Your task to perform on an android device: Clear the shopping cart on newegg.com. Image 0: 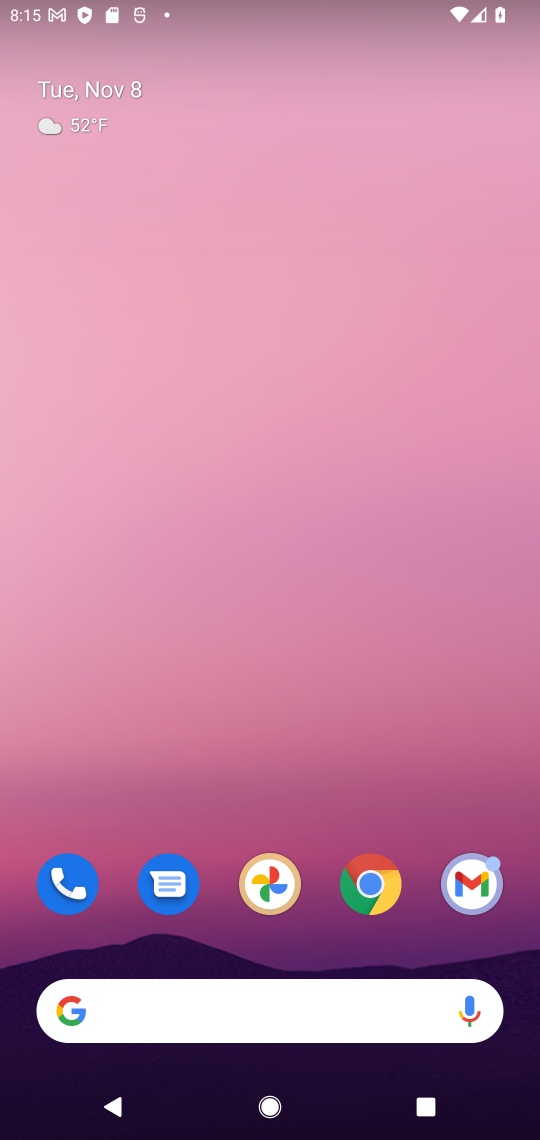
Step 0: drag from (310, 948) to (307, 145)
Your task to perform on an android device: Clear the shopping cart on newegg.com. Image 1: 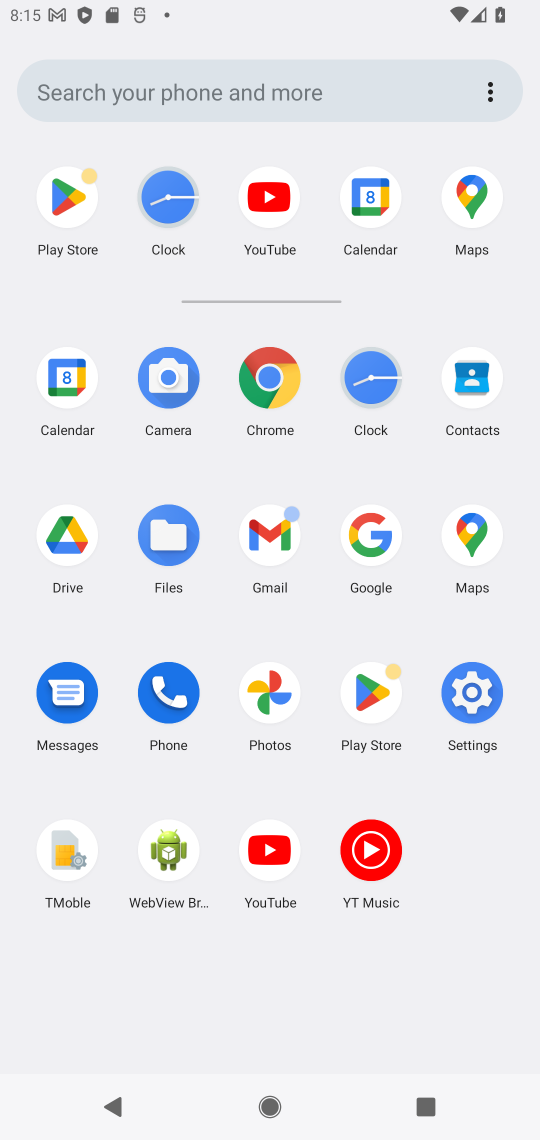
Step 1: click (362, 558)
Your task to perform on an android device: Clear the shopping cart on newegg.com. Image 2: 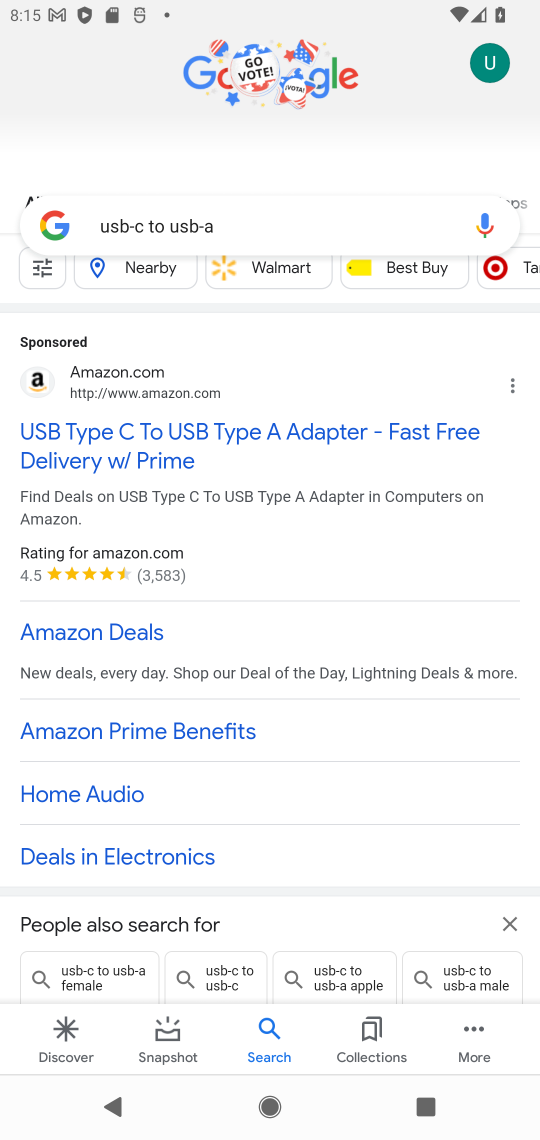
Step 2: click (297, 223)
Your task to perform on an android device: Clear the shopping cart on newegg.com. Image 3: 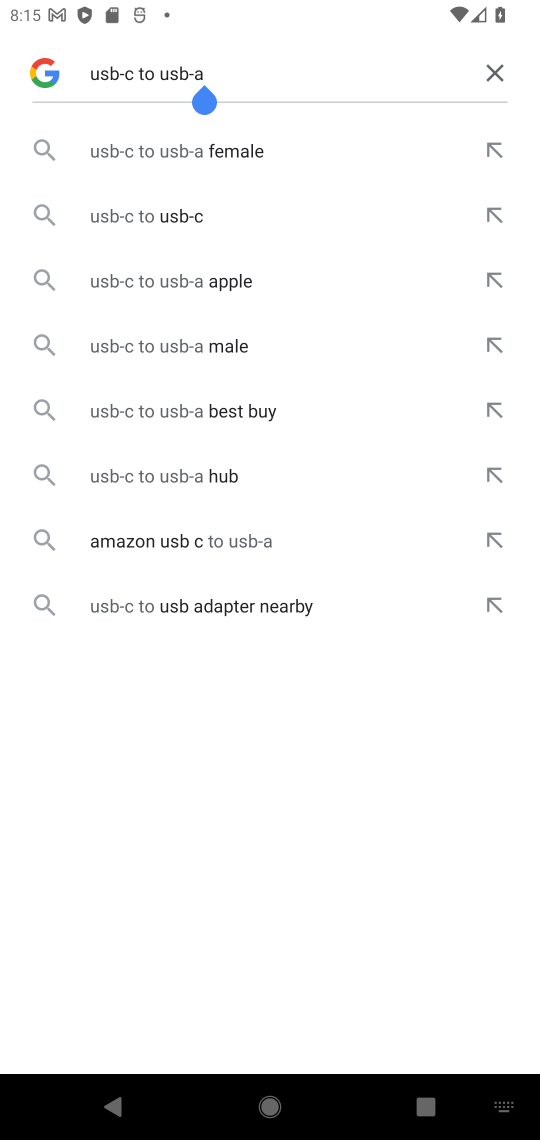
Step 3: click (501, 69)
Your task to perform on an android device: Clear the shopping cart on newegg.com. Image 4: 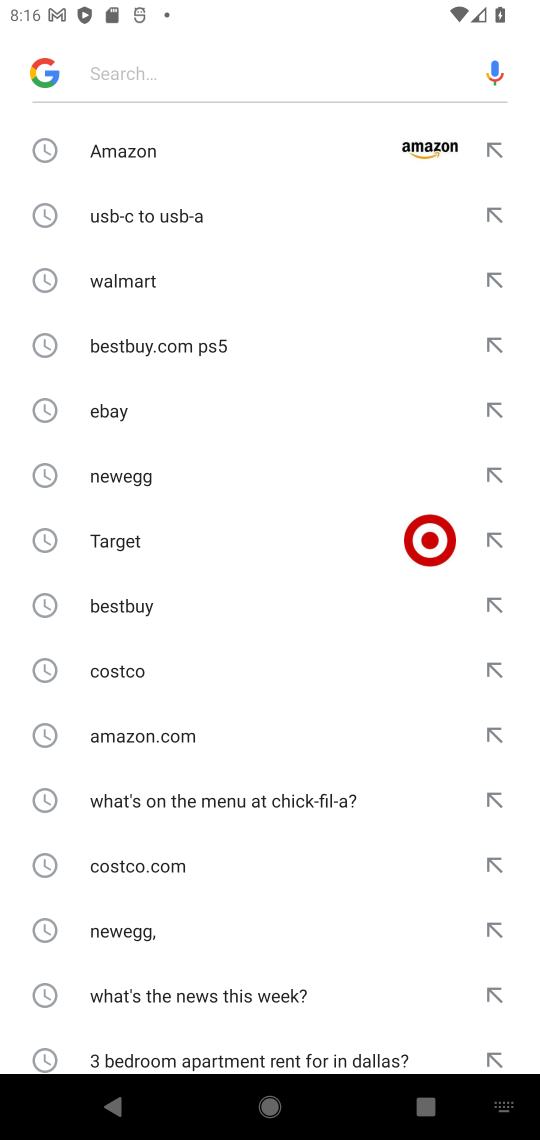
Step 4: type "newegg.com"
Your task to perform on an android device: Clear the shopping cart on newegg.com. Image 5: 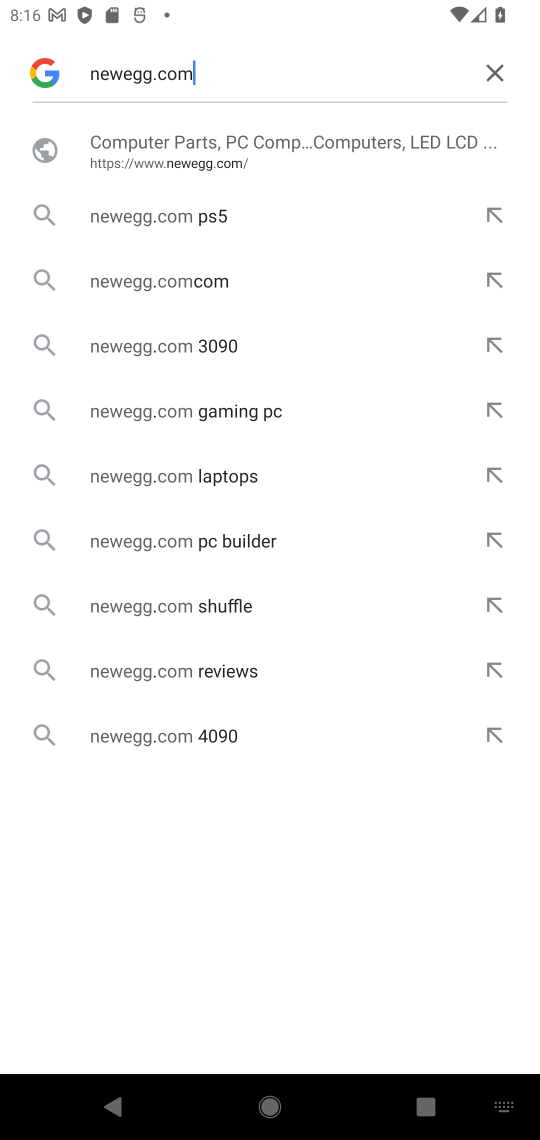
Step 5: click (356, 158)
Your task to perform on an android device: Clear the shopping cart on newegg.com. Image 6: 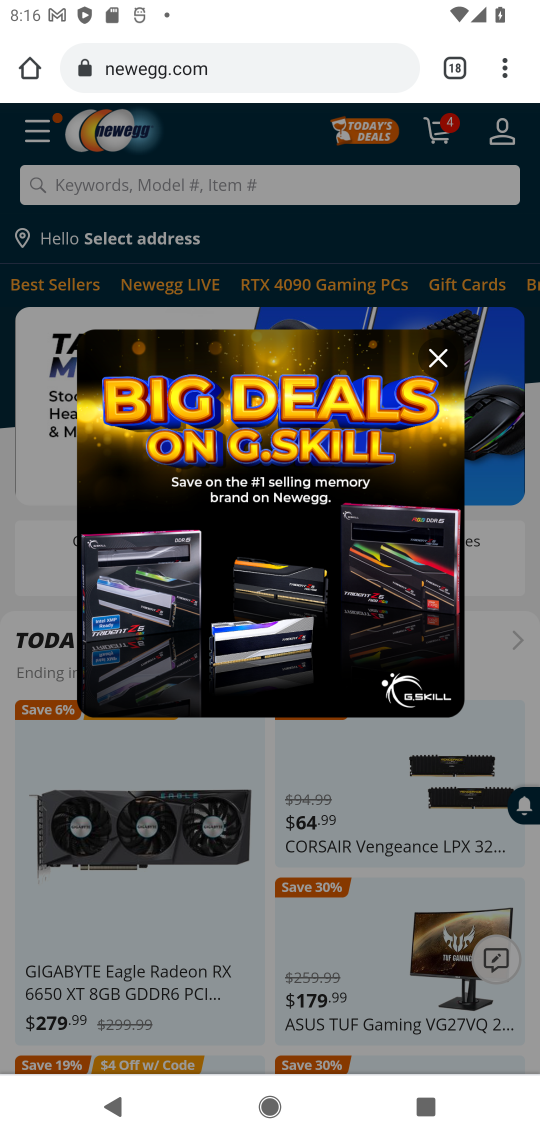
Step 6: click (441, 363)
Your task to perform on an android device: Clear the shopping cart on newegg.com. Image 7: 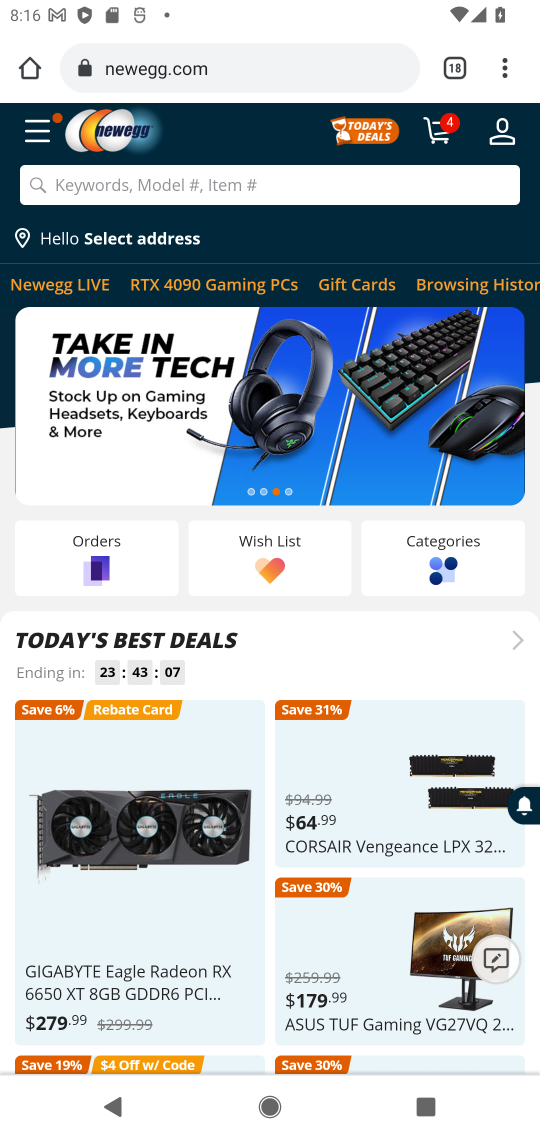
Step 7: click (450, 143)
Your task to perform on an android device: Clear the shopping cart on newegg.com. Image 8: 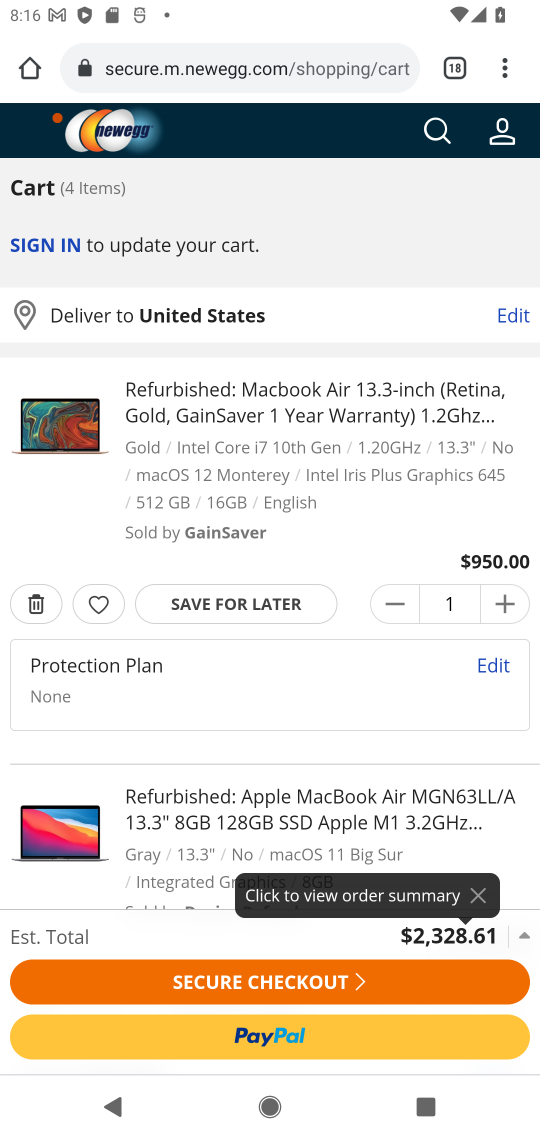
Step 8: click (397, 603)
Your task to perform on an android device: Clear the shopping cart on newegg.com. Image 9: 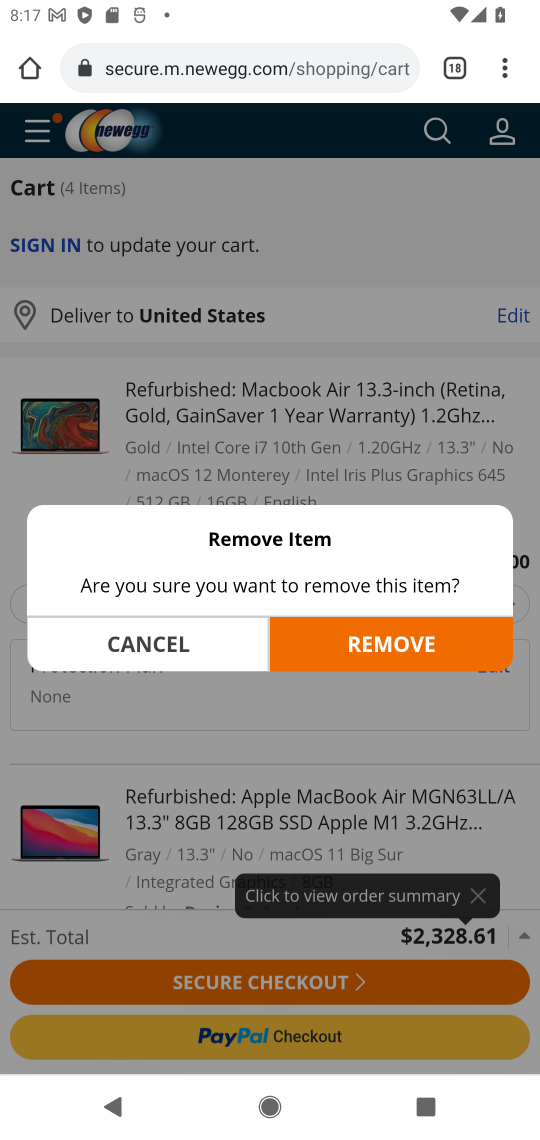
Step 9: click (397, 646)
Your task to perform on an android device: Clear the shopping cart on newegg.com. Image 10: 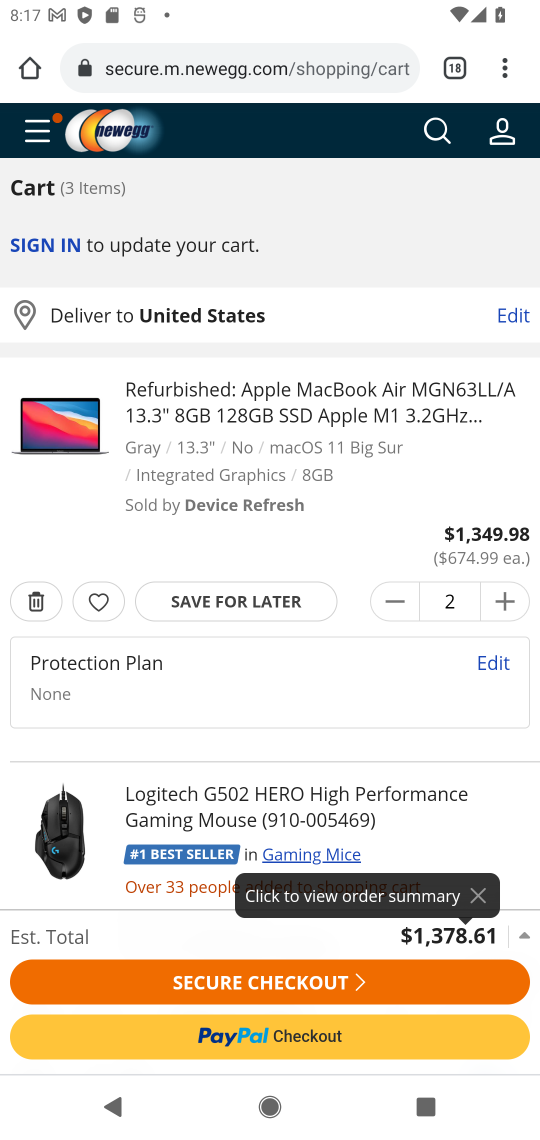
Step 10: click (395, 609)
Your task to perform on an android device: Clear the shopping cart on newegg.com. Image 11: 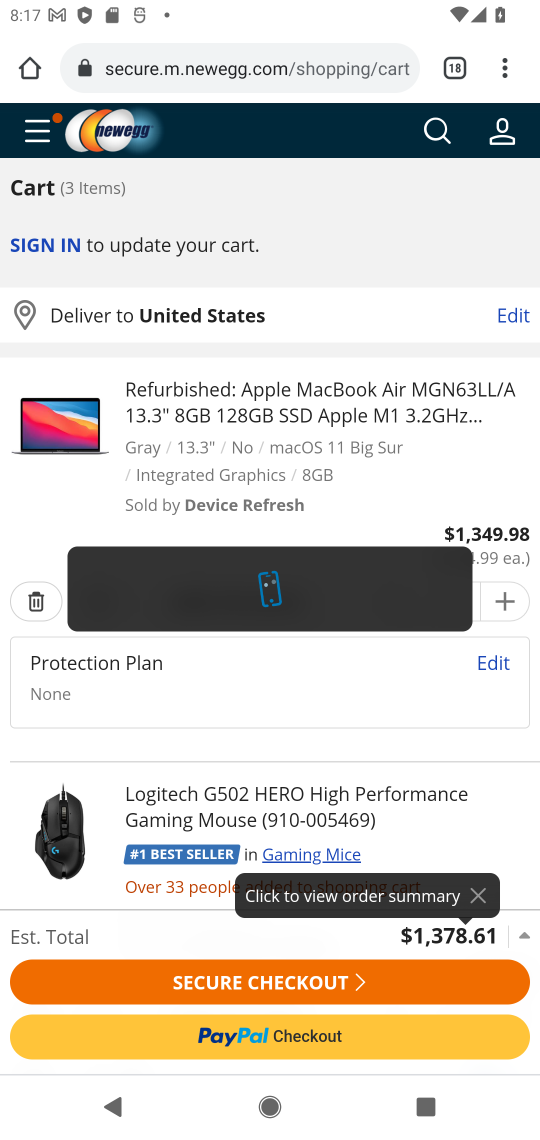
Step 11: click (395, 609)
Your task to perform on an android device: Clear the shopping cart on newegg.com. Image 12: 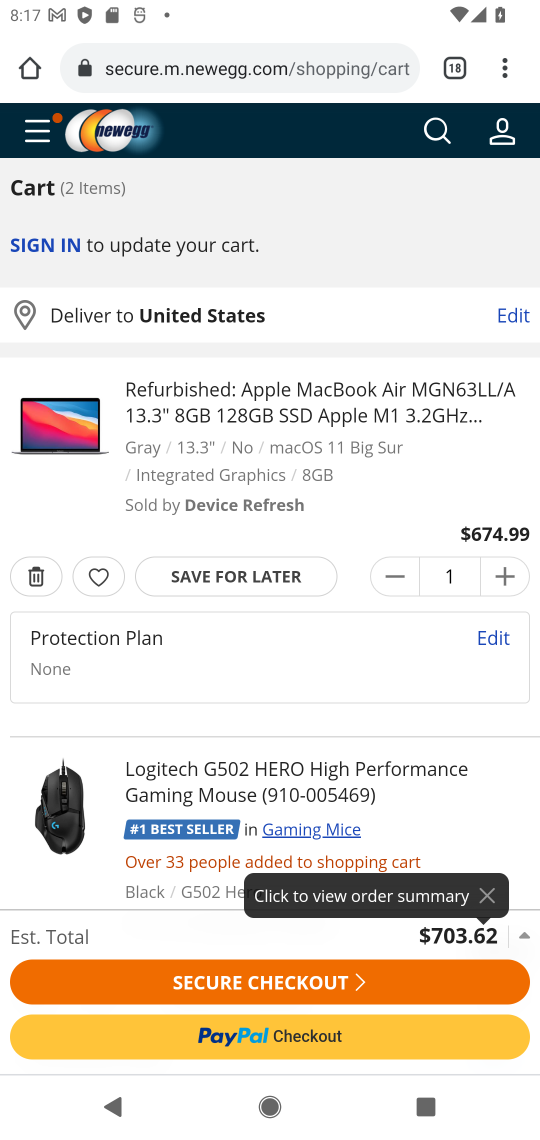
Step 12: click (397, 589)
Your task to perform on an android device: Clear the shopping cart on newegg.com. Image 13: 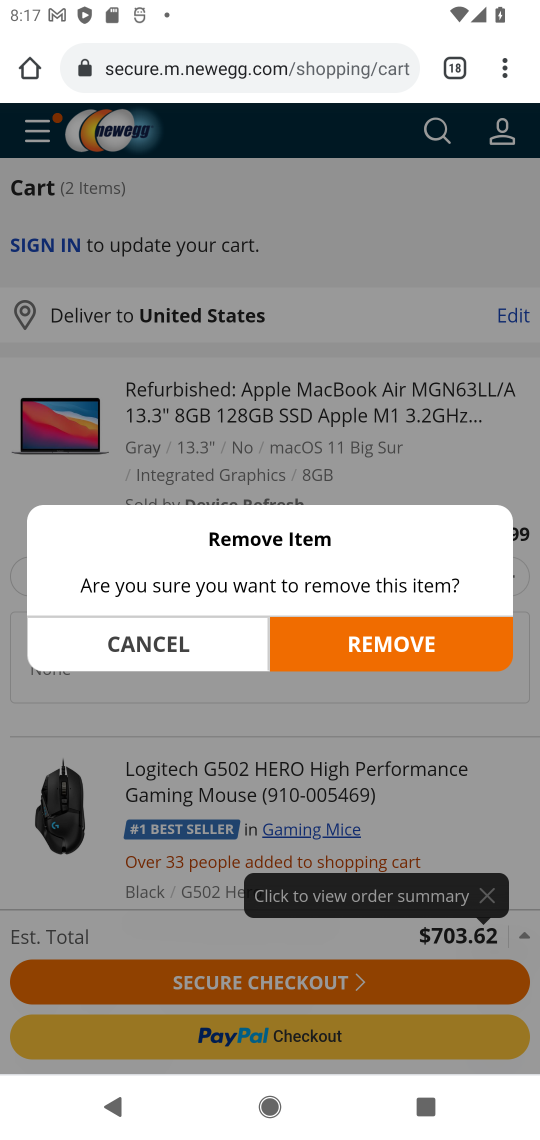
Step 13: click (407, 651)
Your task to perform on an android device: Clear the shopping cart on newegg.com. Image 14: 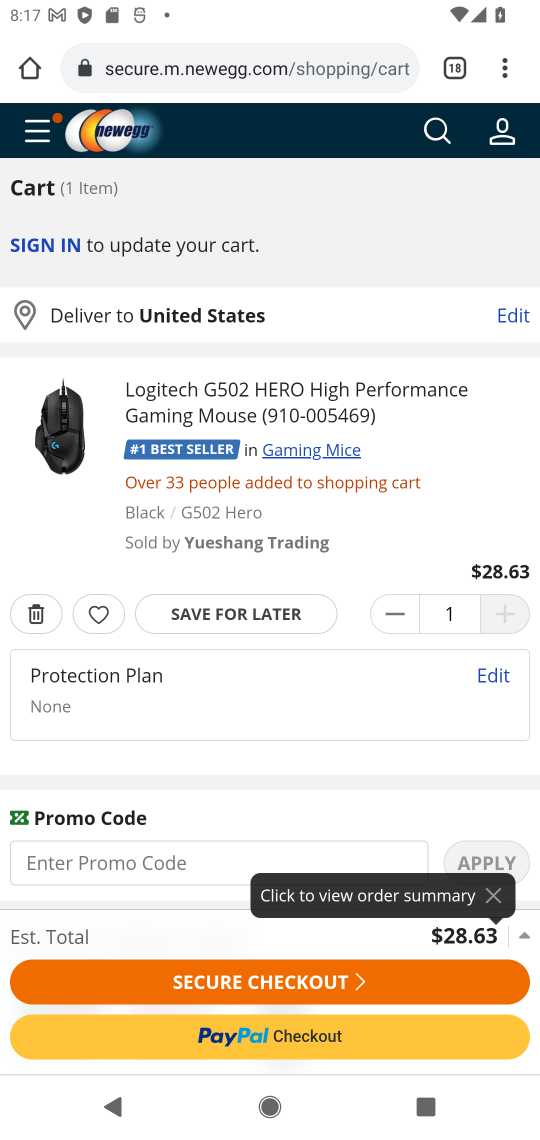
Step 14: task complete